Your task to perform on an android device: What is the recent news? Image 0: 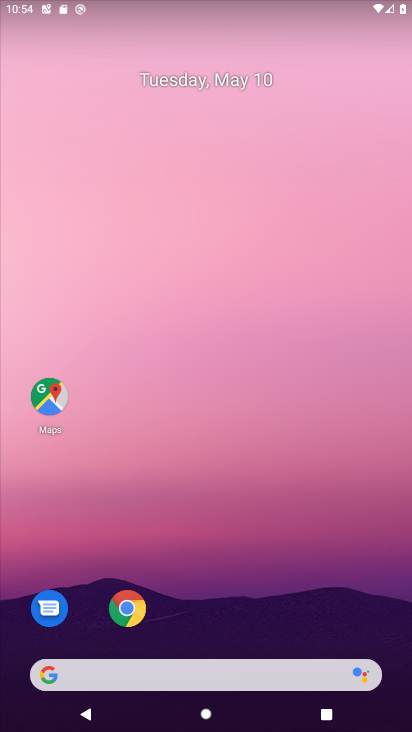
Step 0: drag from (364, 170) to (392, 589)
Your task to perform on an android device: What is the recent news? Image 1: 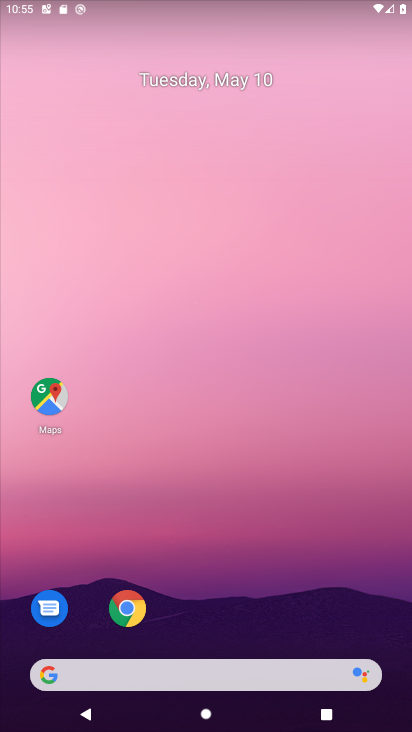
Step 1: drag from (216, 665) to (286, 171)
Your task to perform on an android device: What is the recent news? Image 2: 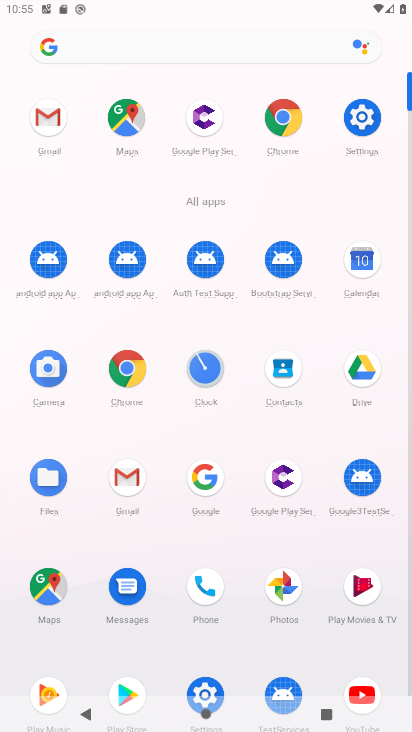
Step 2: click (208, 473)
Your task to perform on an android device: What is the recent news? Image 3: 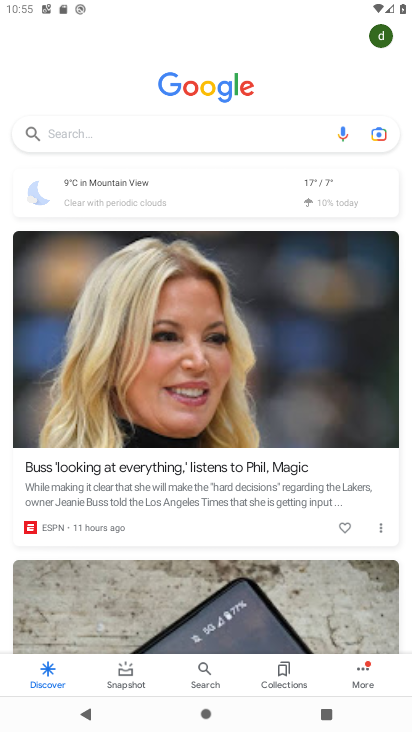
Step 3: task complete